Your task to perform on an android device: empty trash in google photos Image 0: 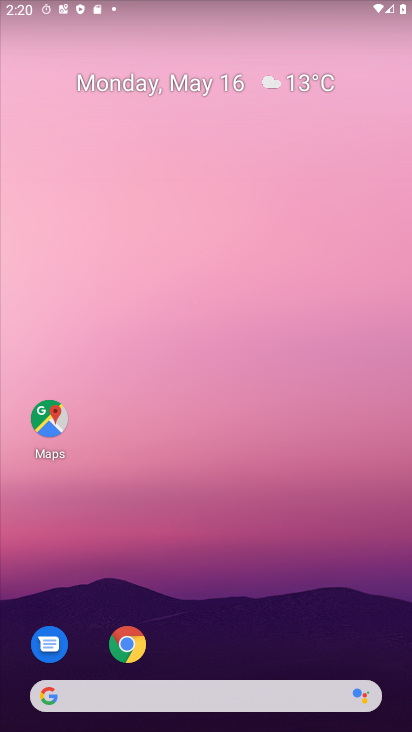
Step 0: drag from (203, 514) to (57, 12)
Your task to perform on an android device: empty trash in google photos Image 1: 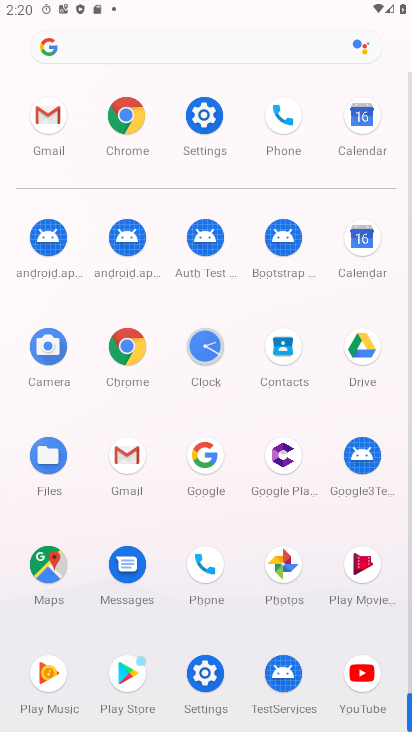
Step 1: drag from (204, 570) to (151, 356)
Your task to perform on an android device: empty trash in google photos Image 2: 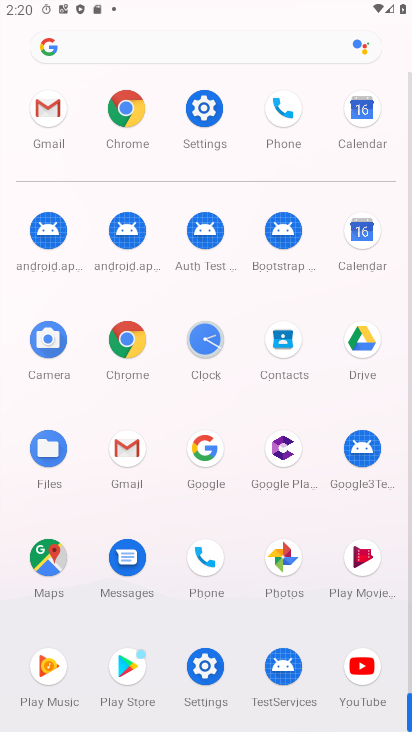
Step 2: click (285, 593)
Your task to perform on an android device: empty trash in google photos Image 3: 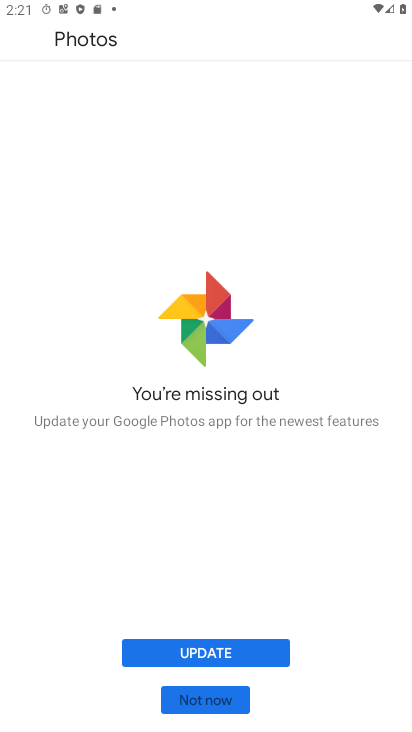
Step 3: task complete